Your task to perform on an android device: change the clock style Image 0: 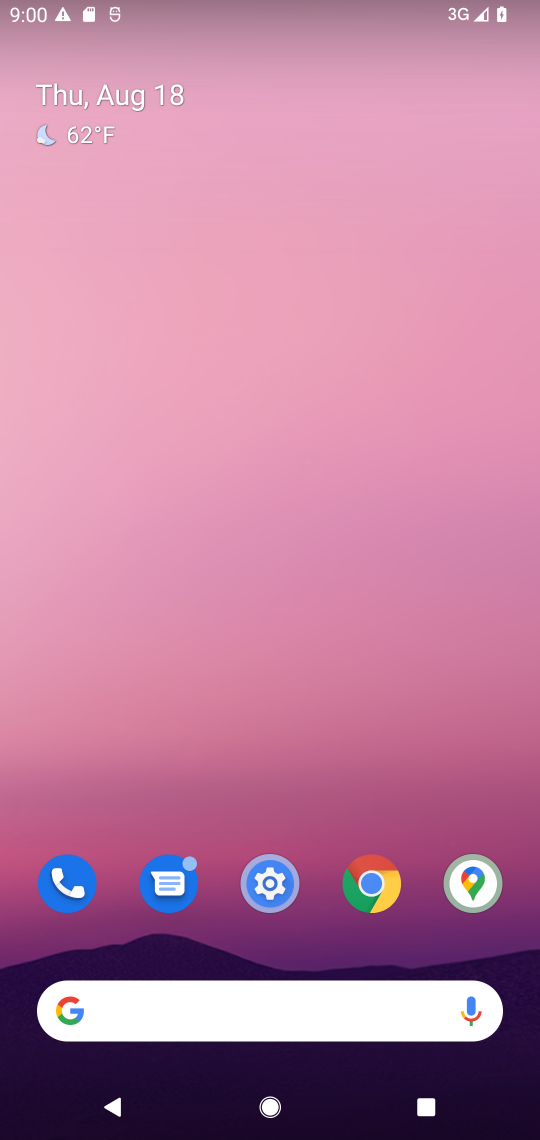
Step 0: click (263, 869)
Your task to perform on an android device: change the clock style Image 1: 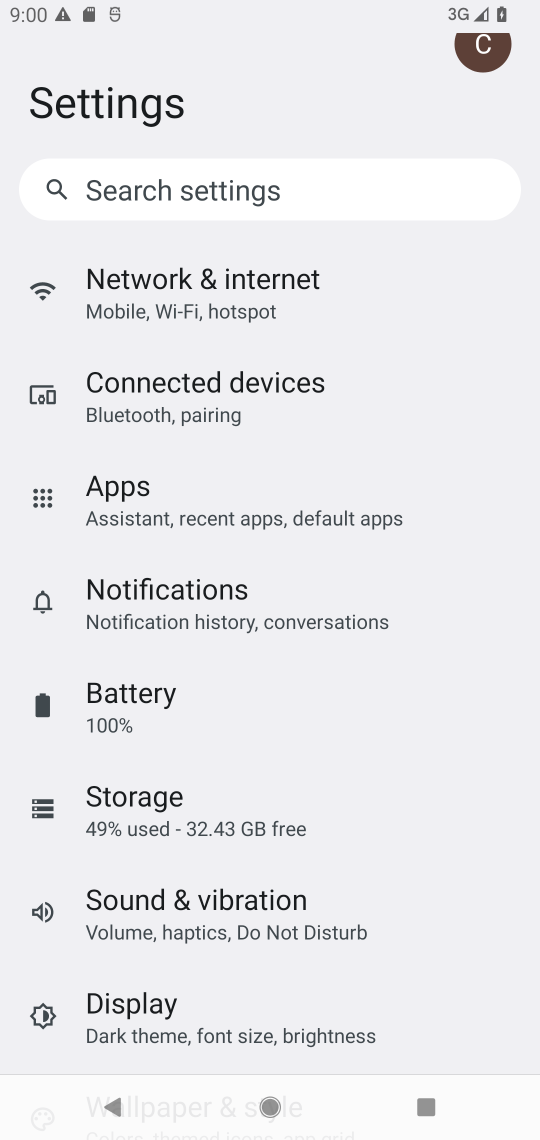
Step 1: drag from (398, 935) to (361, 451)
Your task to perform on an android device: change the clock style Image 2: 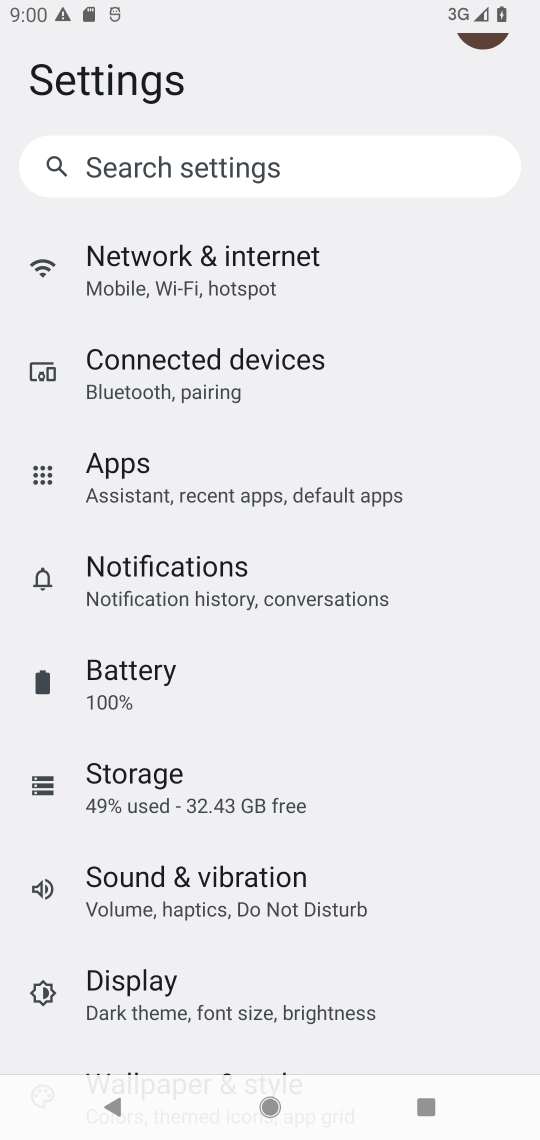
Step 2: drag from (469, 201) to (527, 621)
Your task to perform on an android device: change the clock style Image 3: 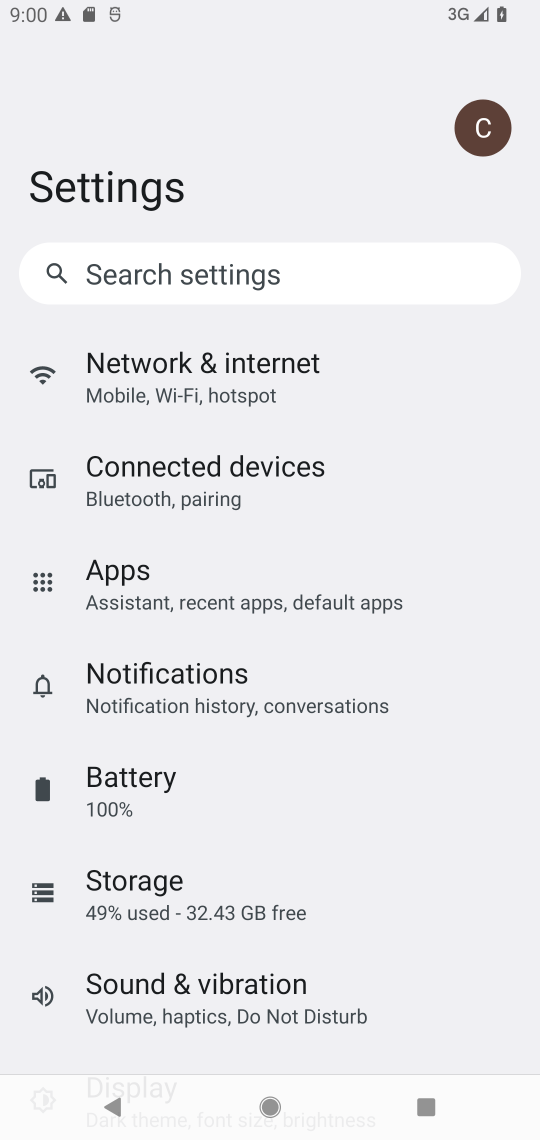
Step 3: press home button
Your task to perform on an android device: change the clock style Image 4: 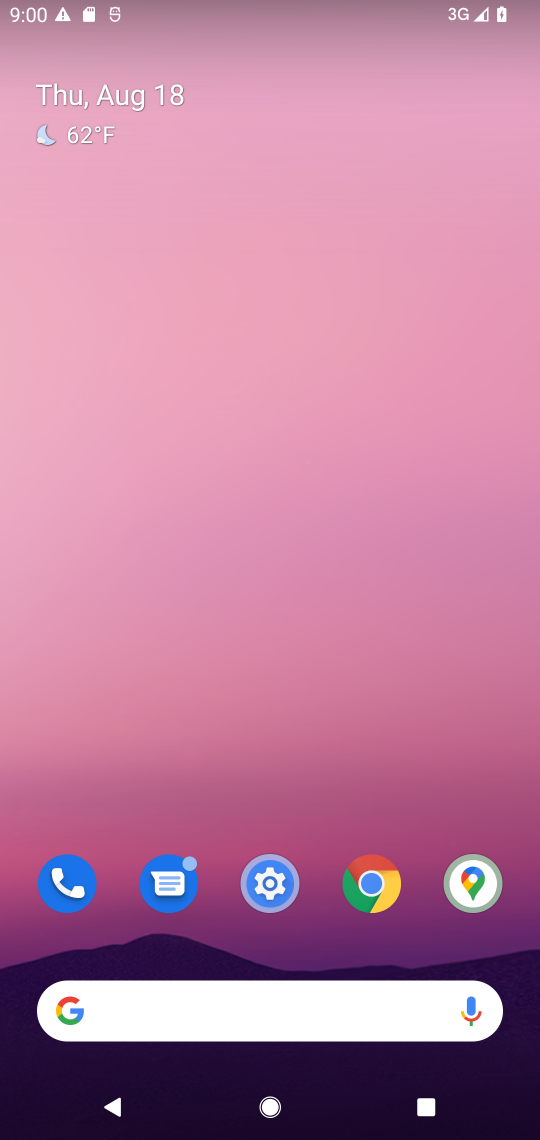
Step 4: drag from (5, 1080) to (501, 272)
Your task to perform on an android device: change the clock style Image 5: 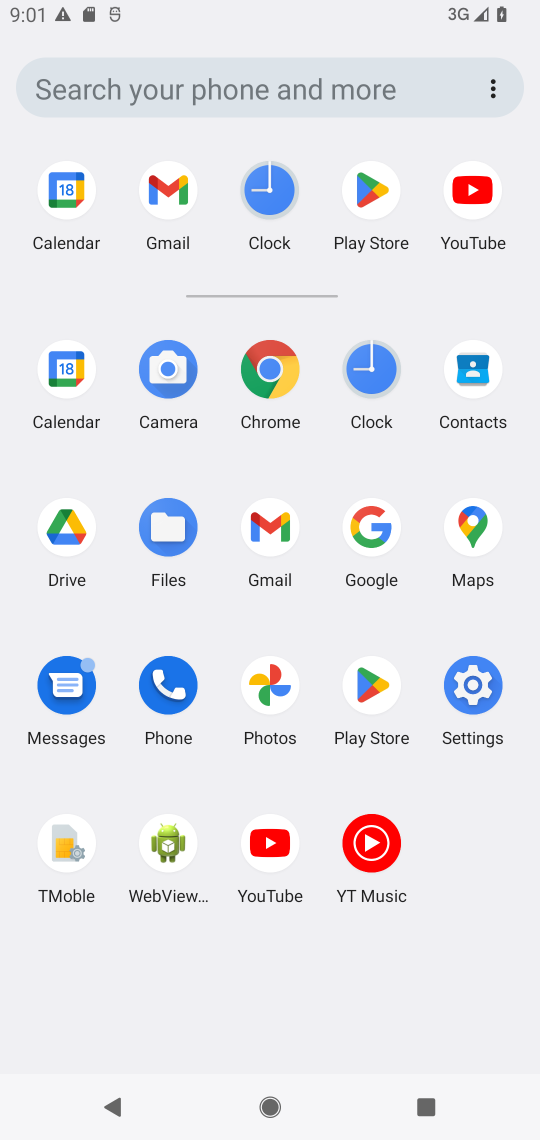
Step 5: click (353, 354)
Your task to perform on an android device: change the clock style Image 6: 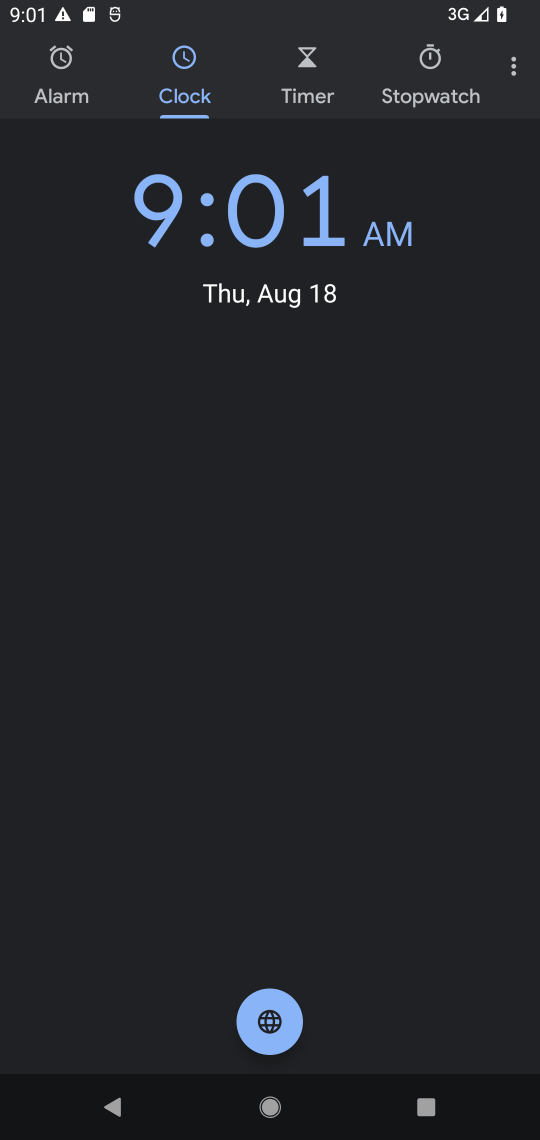
Step 6: click (515, 74)
Your task to perform on an android device: change the clock style Image 7: 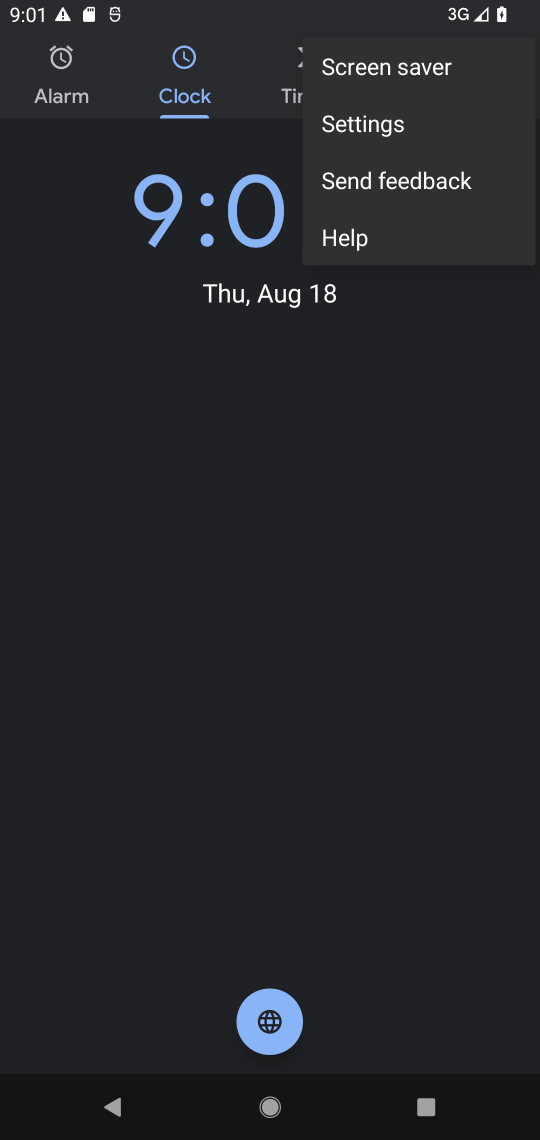
Step 7: click (373, 124)
Your task to perform on an android device: change the clock style Image 8: 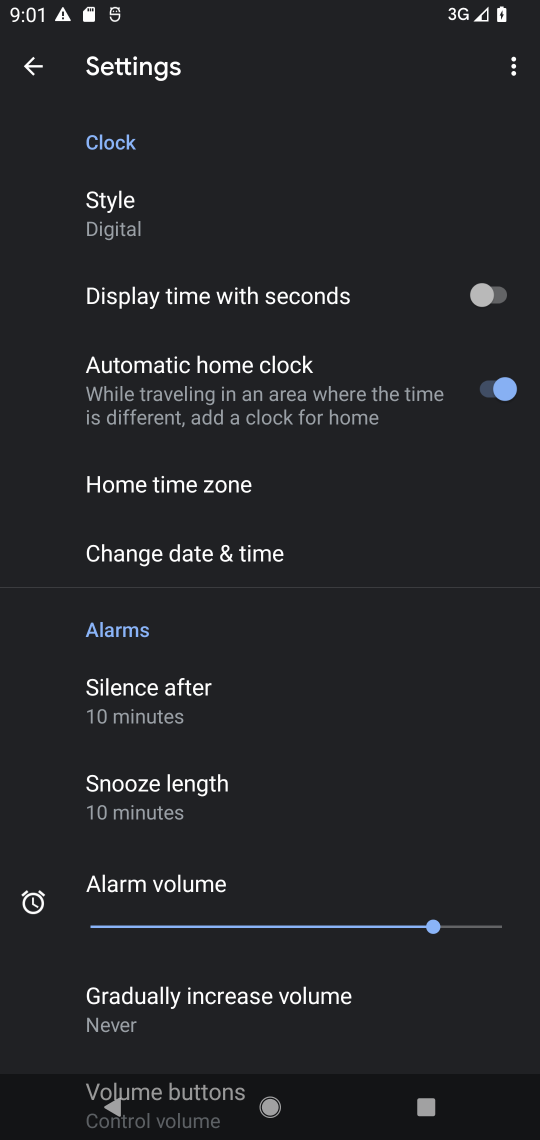
Step 8: click (160, 221)
Your task to perform on an android device: change the clock style Image 9: 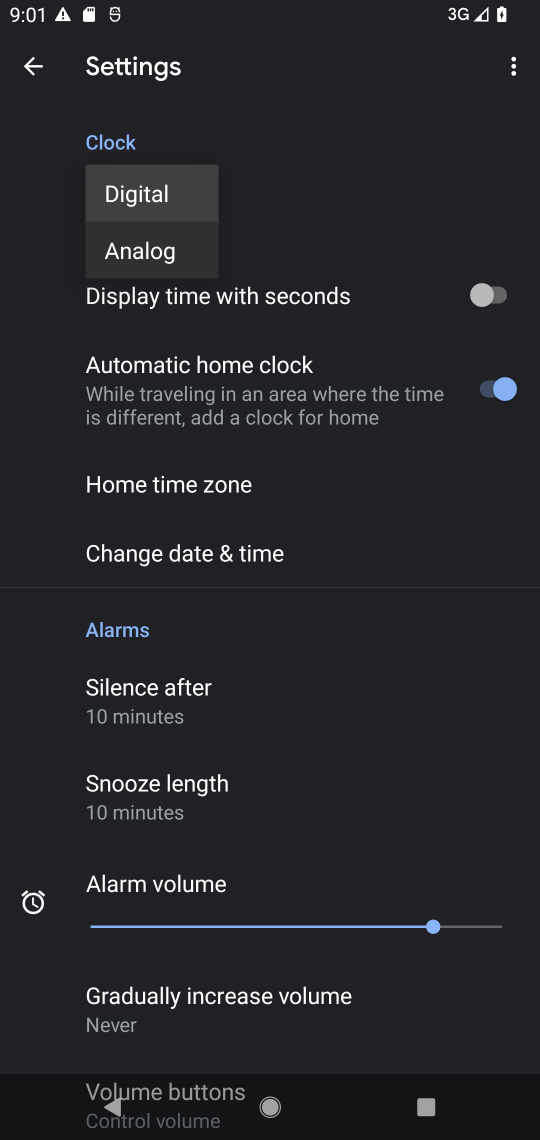
Step 9: click (140, 271)
Your task to perform on an android device: change the clock style Image 10: 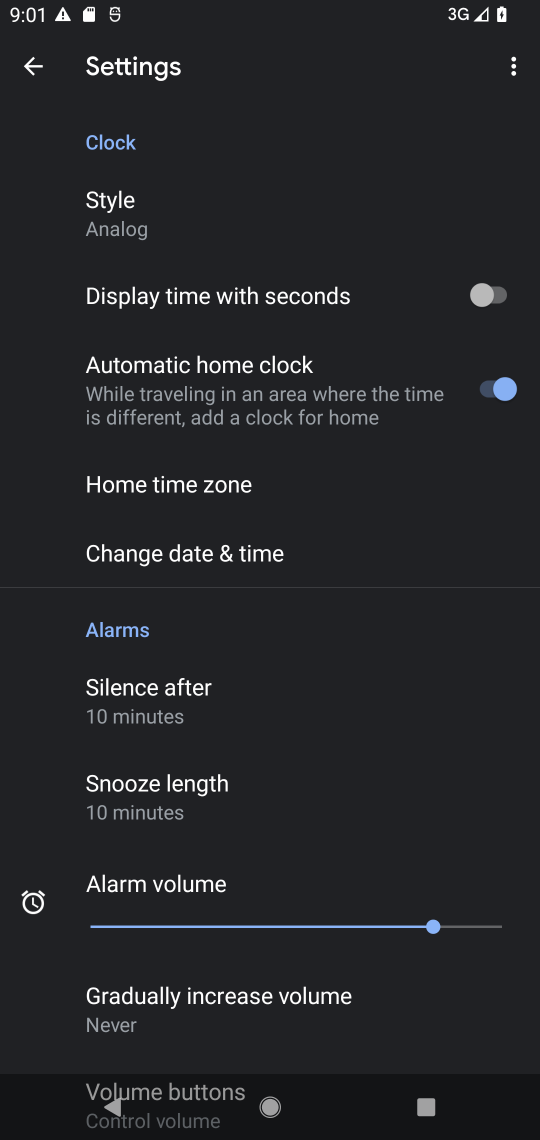
Step 10: task complete